Your task to perform on an android device: open app "Nova Launcher" (install if not already installed), go to login, and select forgot password Image 0: 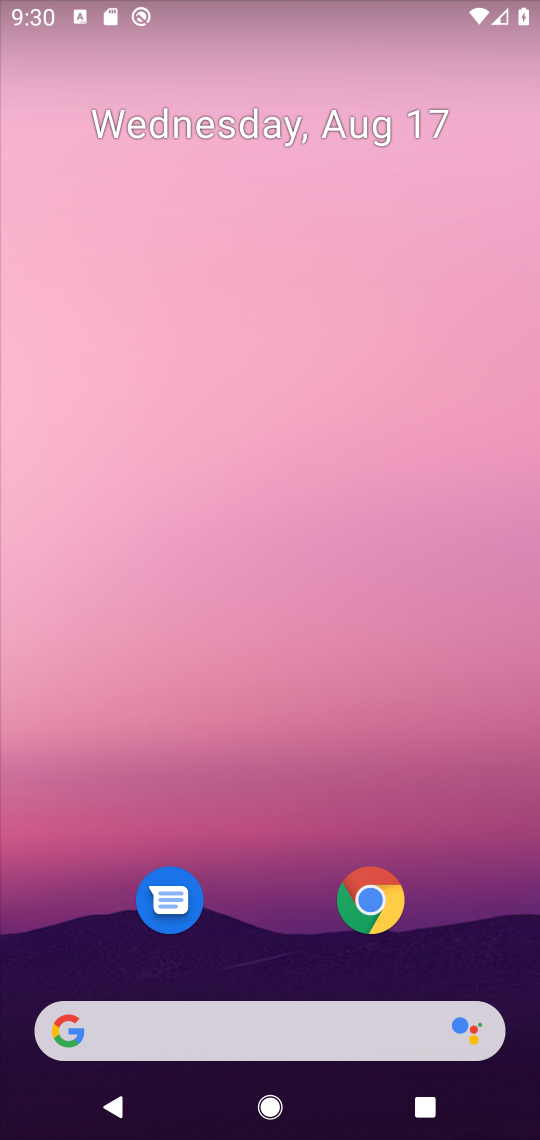
Step 0: drag from (285, 992) to (381, 267)
Your task to perform on an android device: open app "Nova Launcher" (install if not already installed), go to login, and select forgot password Image 1: 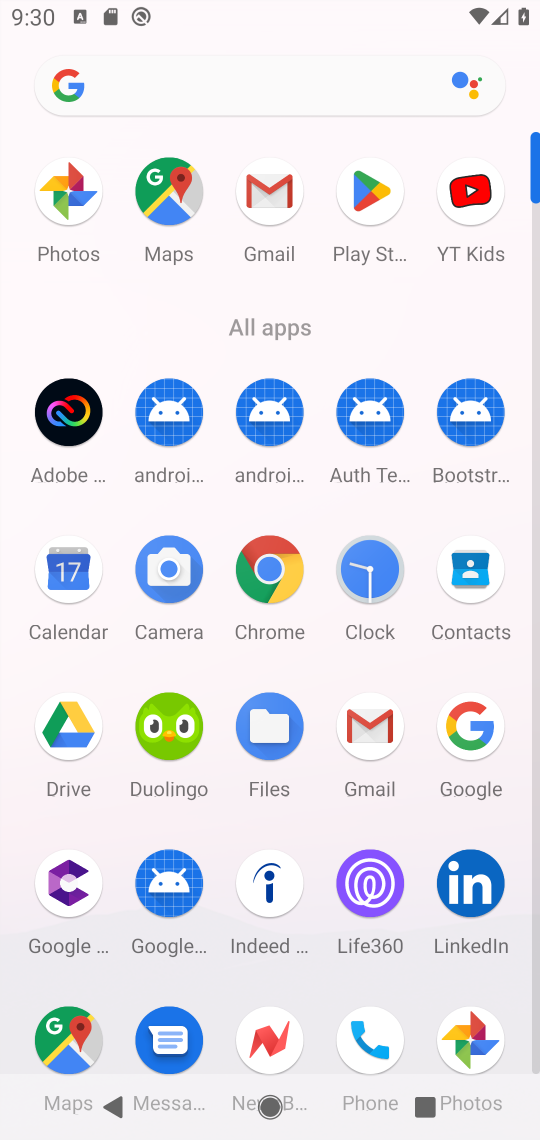
Step 1: click (386, 194)
Your task to perform on an android device: open app "Nova Launcher" (install if not already installed), go to login, and select forgot password Image 2: 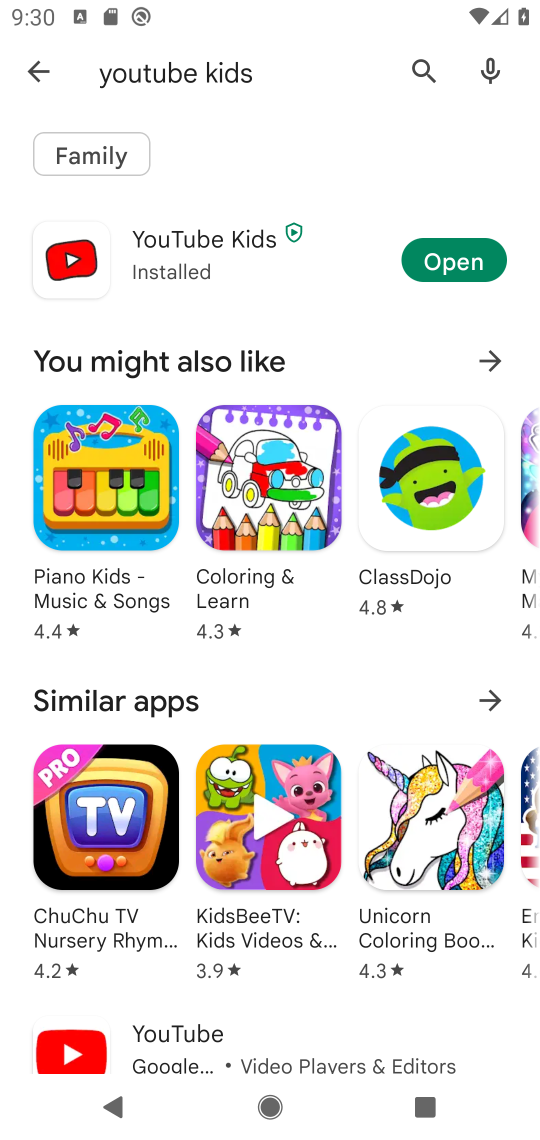
Step 2: click (50, 66)
Your task to perform on an android device: open app "Nova Launcher" (install if not already installed), go to login, and select forgot password Image 3: 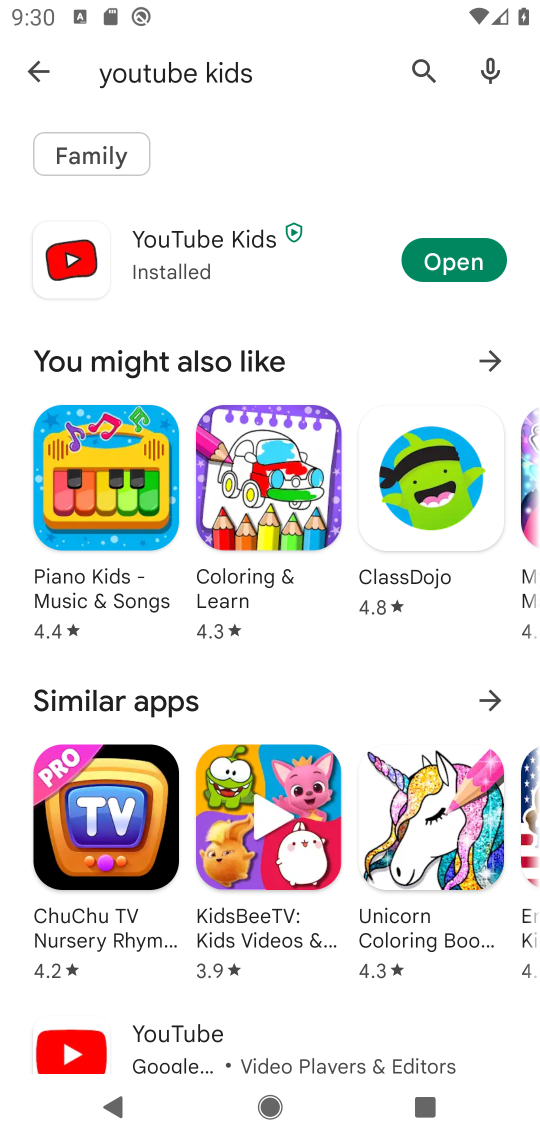
Step 3: click (36, 73)
Your task to perform on an android device: open app "Nova Launcher" (install if not already installed), go to login, and select forgot password Image 4: 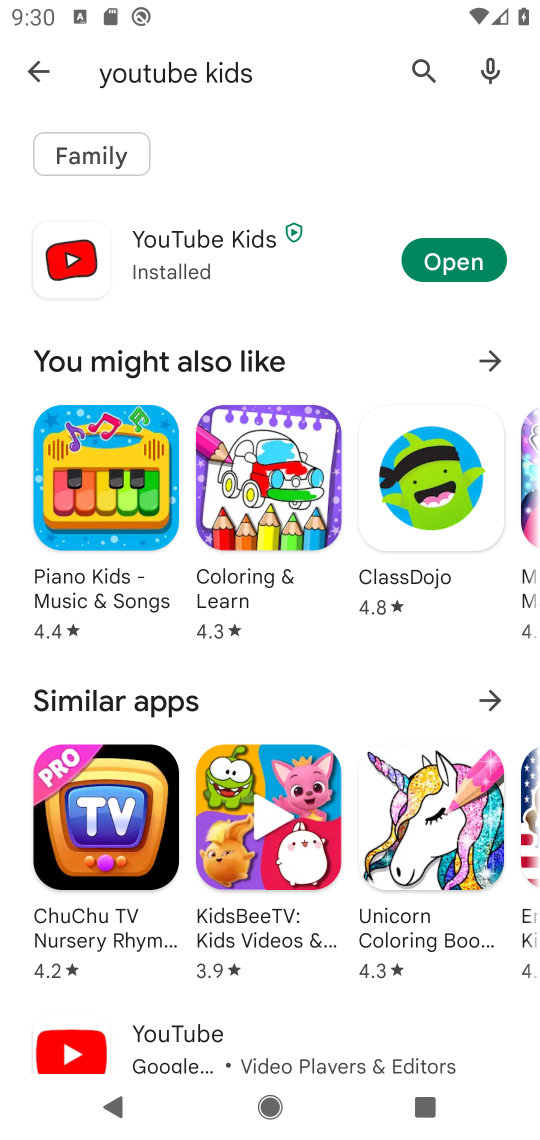
Step 4: click (42, 82)
Your task to perform on an android device: open app "Nova Launcher" (install if not already installed), go to login, and select forgot password Image 5: 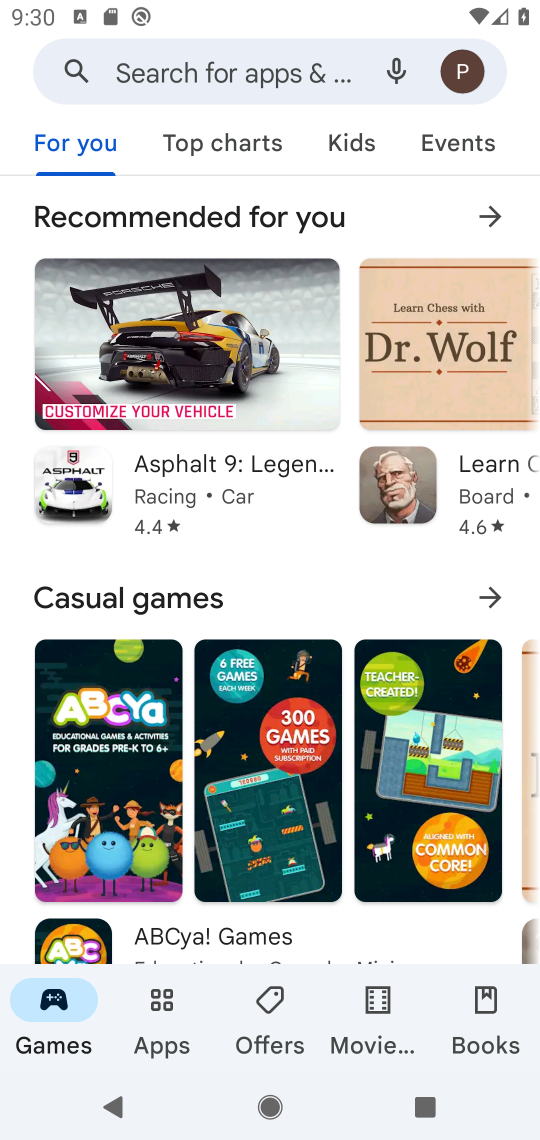
Step 5: click (151, 85)
Your task to perform on an android device: open app "Nova Launcher" (install if not already installed), go to login, and select forgot password Image 6: 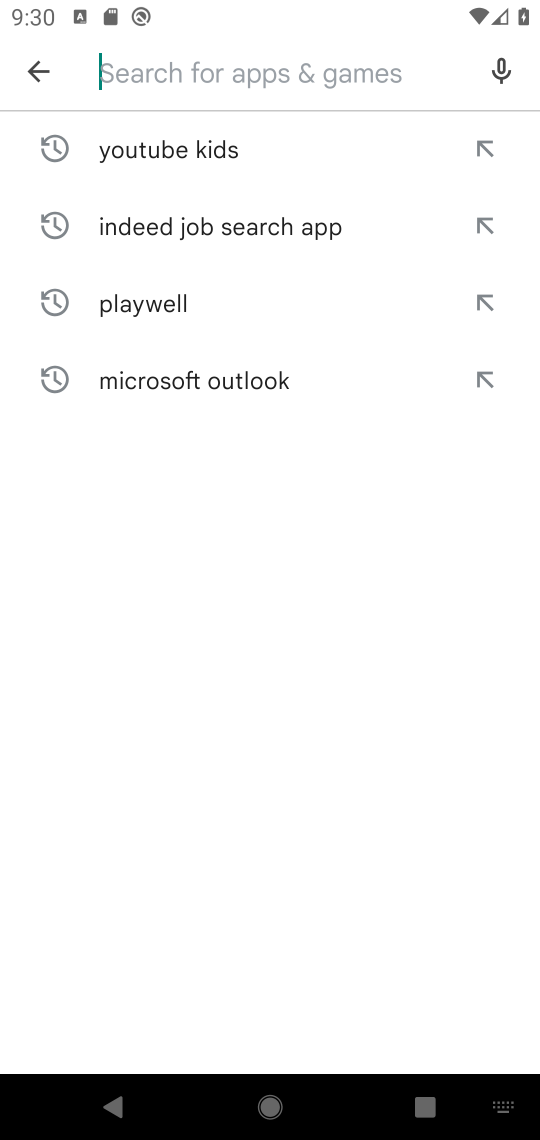
Step 6: type "Nova Launcher"
Your task to perform on an android device: open app "Nova Launcher" (install if not already installed), go to login, and select forgot password Image 7: 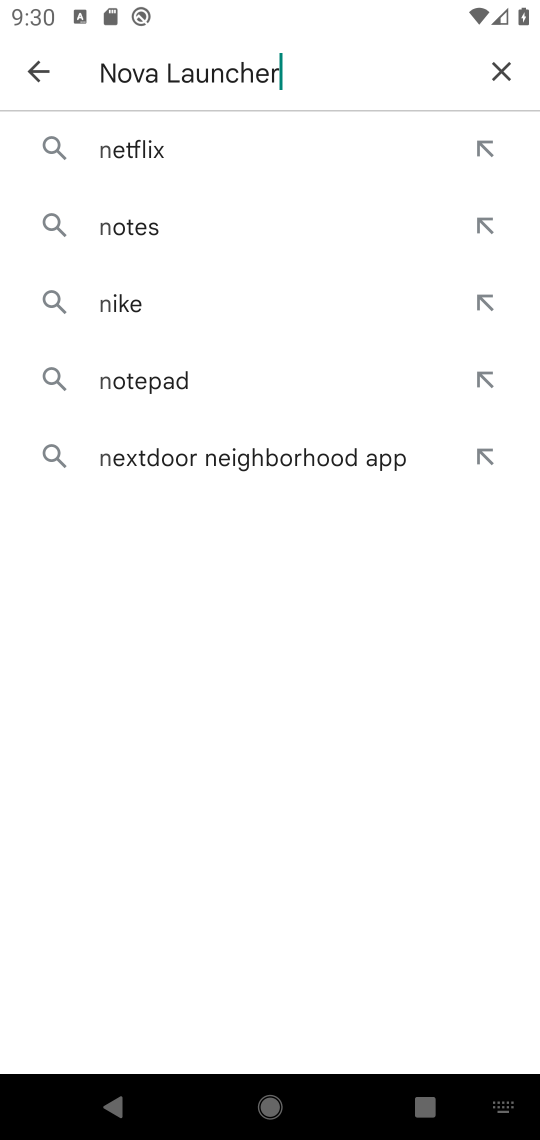
Step 7: type ""
Your task to perform on an android device: open app "Nova Launcher" (install if not already installed), go to login, and select forgot password Image 8: 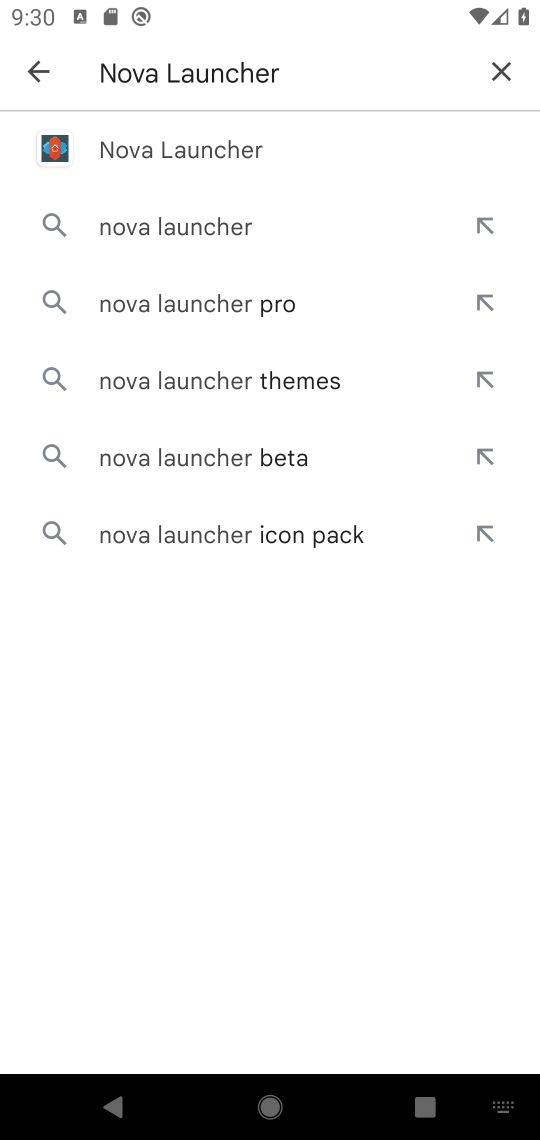
Step 8: click (289, 139)
Your task to perform on an android device: open app "Nova Launcher" (install if not already installed), go to login, and select forgot password Image 9: 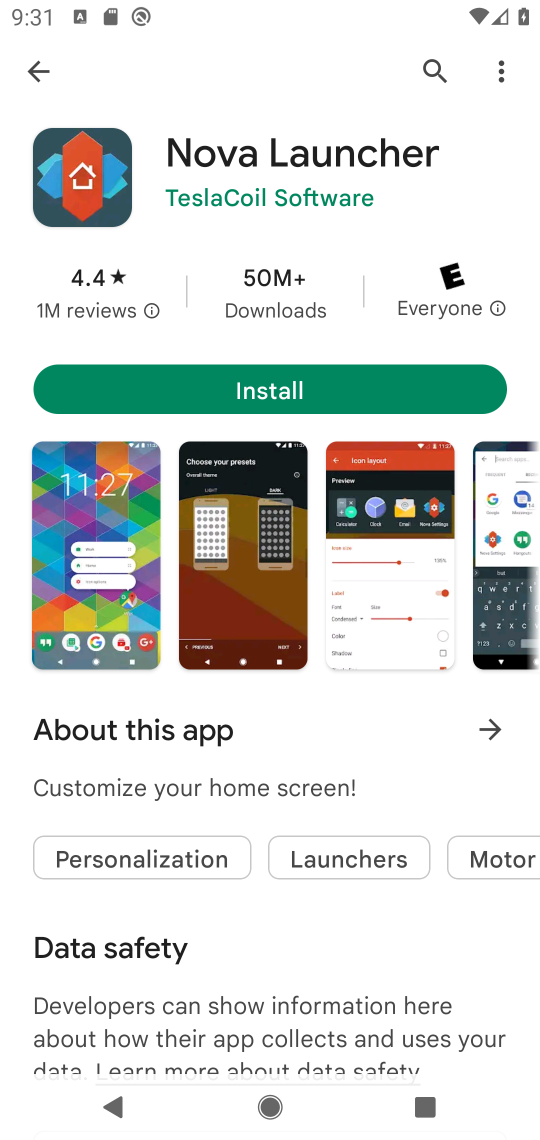
Step 9: click (173, 384)
Your task to perform on an android device: open app "Nova Launcher" (install if not already installed), go to login, and select forgot password Image 10: 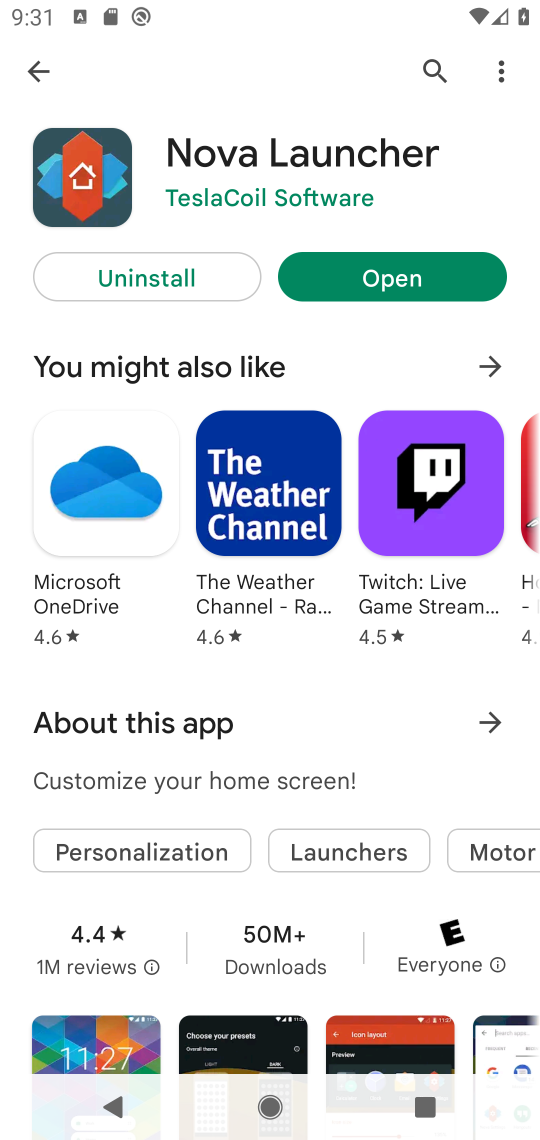
Step 10: click (397, 274)
Your task to perform on an android device: open app "Nova Launcher" (install if not already installed), go to login, and select forgot password Image 11: 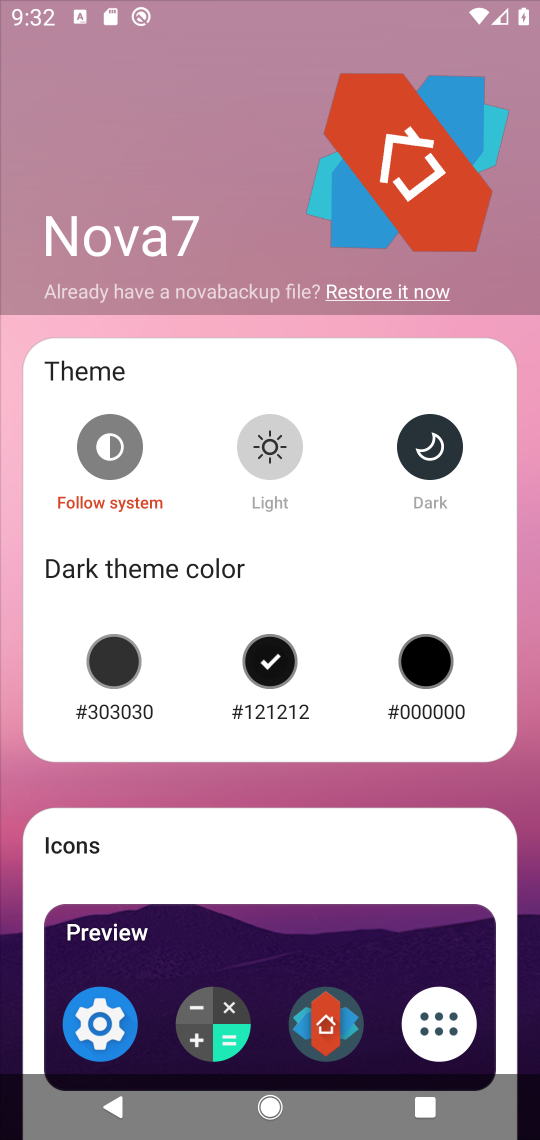
Step 11: task complete